Your task to perform on an android device: change the clock display to analog Image 0: 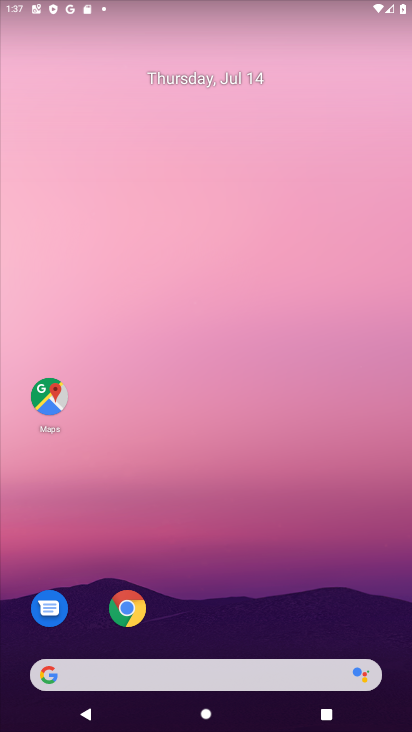
Step 0: drag from (327, 670) to (273, 348)
Your task to perform on an android device: change the clock display to analog Image 1: 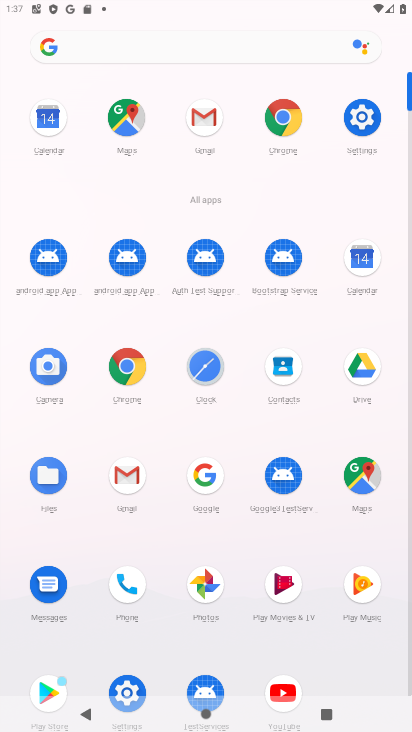
Step 1: click (205, 364)
Your task to perform on an android device: change the clock display to analog Image 2: 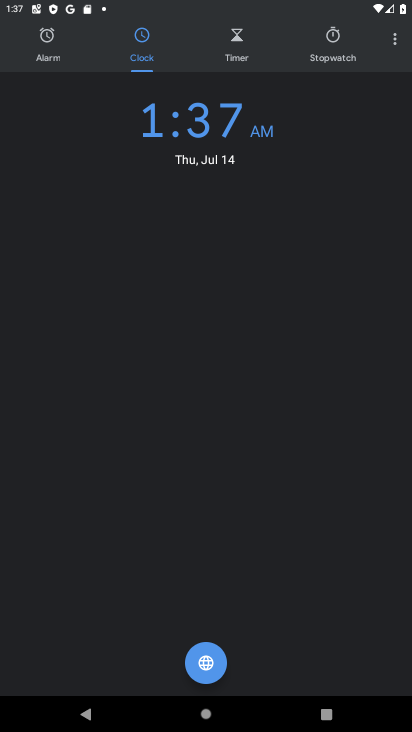
Step 2: click (397, 34)
Your task to perform on an android device: change the clock display to analog Image 3: 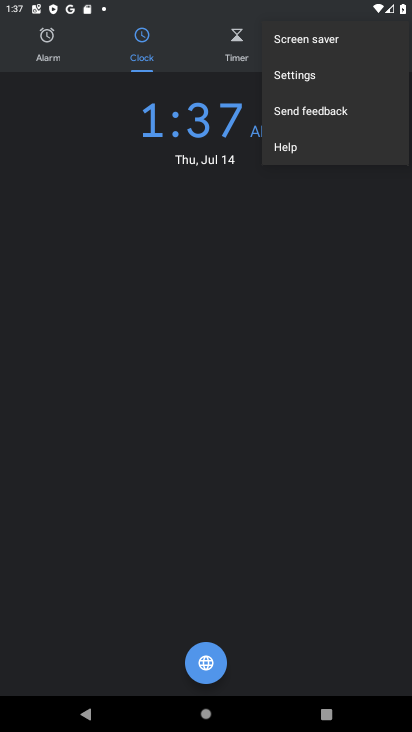
Step 3: click (280, 89)
Your task to perform on an android device: change the clock display to analog Image 4: 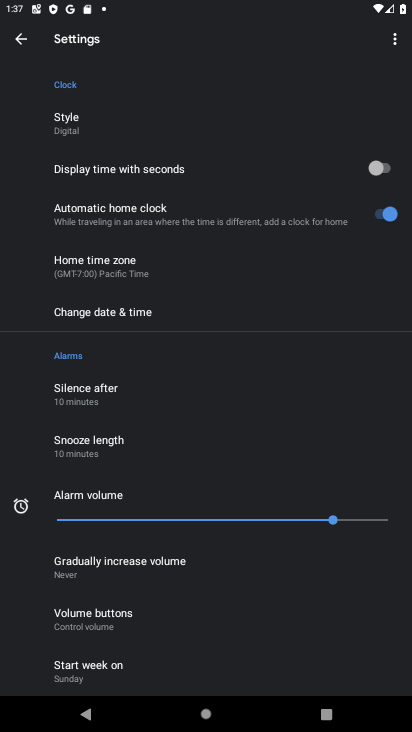
Step 4: click (75, 139)
Your task to perform on an android device: change the clock display to analog Image 5: 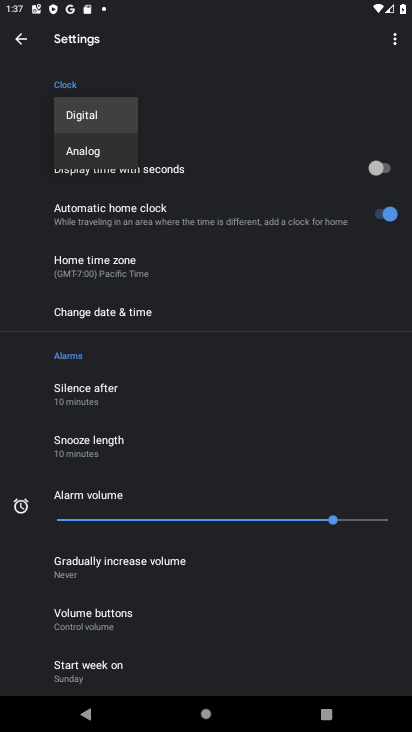
Step 5: click (107, 150)
Your task to perform on an android device: change the clock display to analog Image 6: 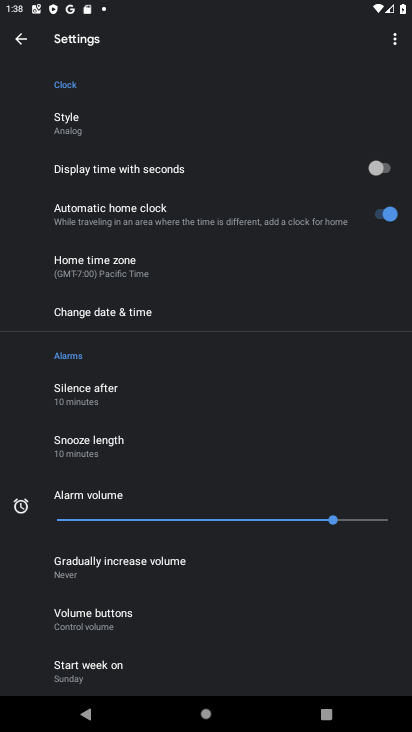
Step 6: task complete